Your task to perform on an android device: What's on my calendar today? Image 0: 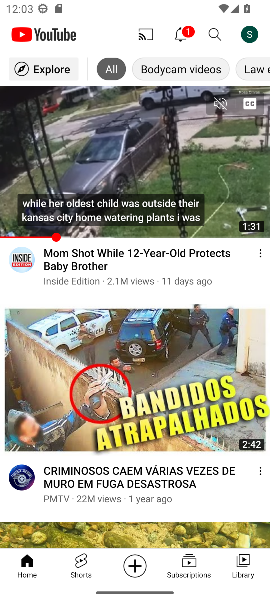
Step 0: press home button
Your task to perform on an android device: What's on my calendar today? Image 1: 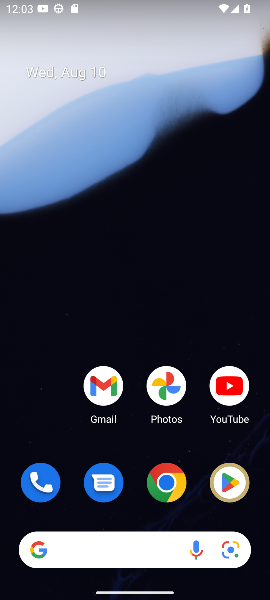
Step 1: drag from (134, 344) to (160, 100)
Your task to perform on an android device: What's on my calendar today? Image 2: 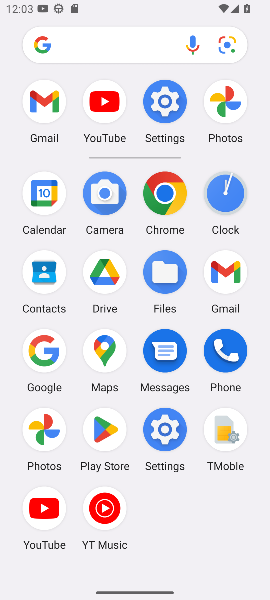
Step 2: click (50, 205)
Your task to perform on an android device: What's on my calendar today? Image 3: 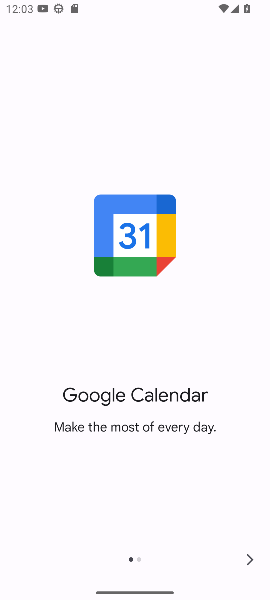
Step 3: click (245, 557)
Your task to perform on an android device: What's on my calendar today? Image 4: 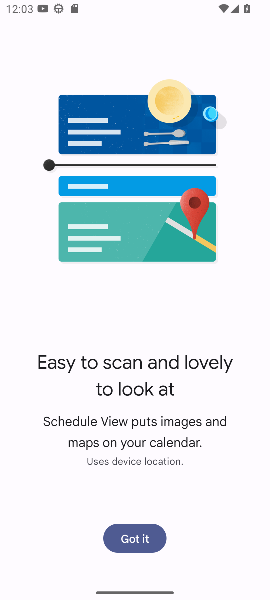
Step 4: click (154, 534)
Your task to perform on an android device: What's on my calendar today? Image 5: 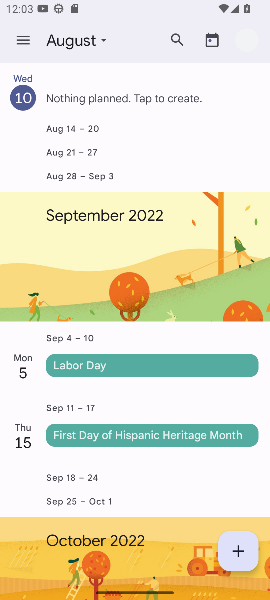
Step 5: task complete